Your task to perform on an android device: toggle sleep mode Image 0: 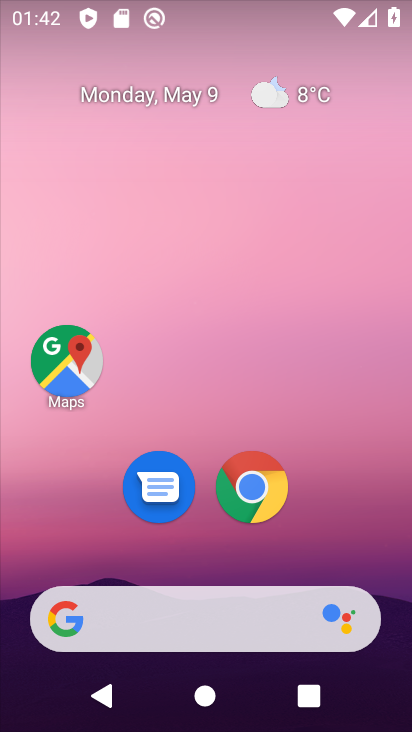
Step 0: drag from (385, 578) to (361, 25)
Your task to perform on an android device: toggle sleep mode Image 1: 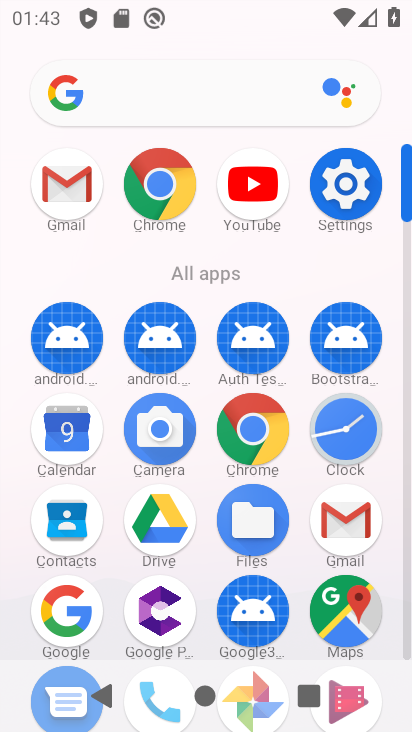
Step 1: click (322, 180)
Your task to perform on an android device: toggle sleep mode Image 2: 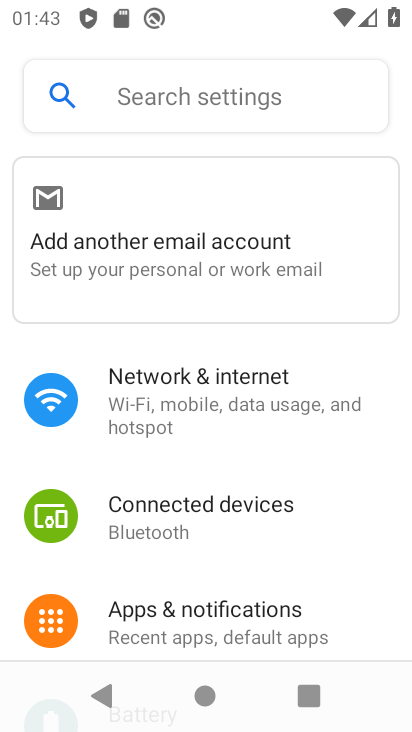
Step 2: drag from (202, 570) to (174, 210)
Your task to perform on an android device: toggle sleep mode Image 3: 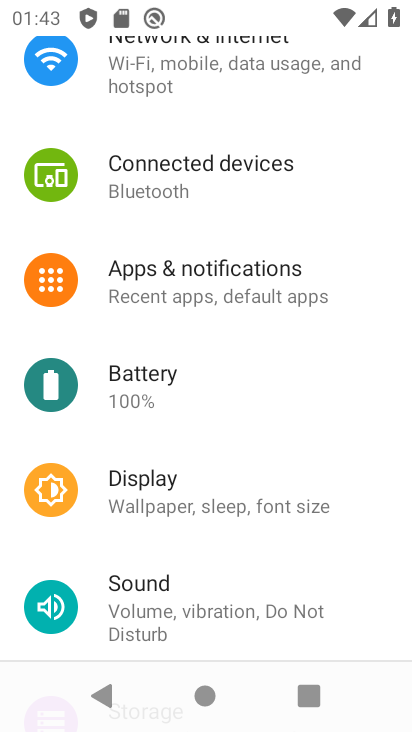
Step 3: click (172, 483)
Your task to perform on an android device: toggle sleep mode Image 4: 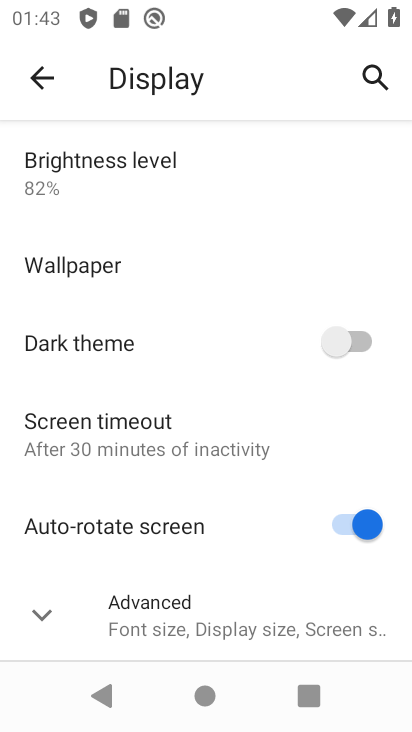
Step 4: click (154, 436)
Your task to perform on an android device: toggle sleep mode Image 5: 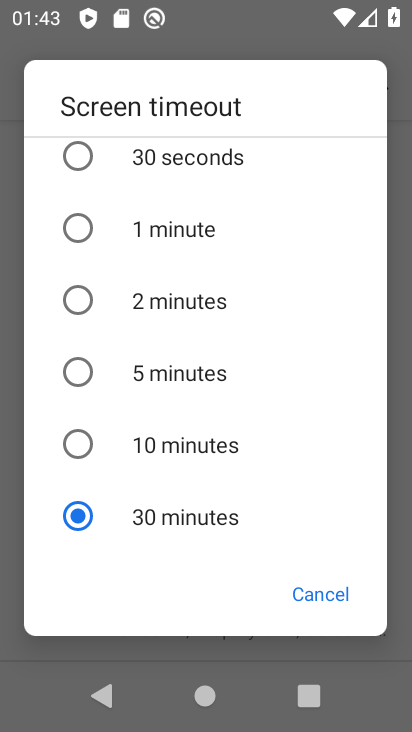
Step 5: task complete